Your task to perform on an android device: Go to location settings Image 0: 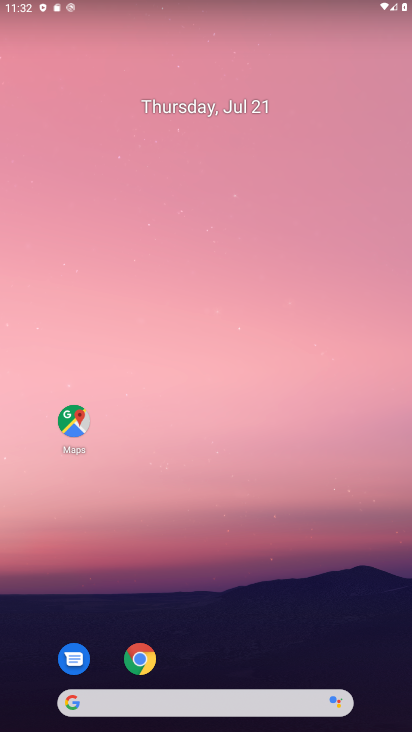
Step 0: task complete